Your task to perform on an android device: change alarm snooze length Image 0: 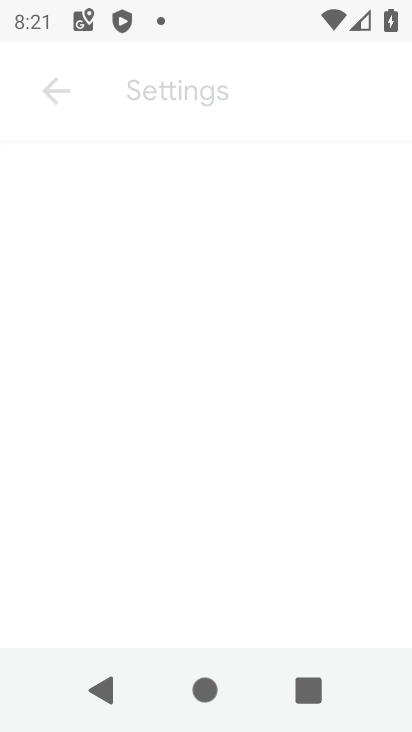
Step 0: drag from (215, 575) to (197, 237)
Your task to perform on an android device: change alarm snooze length Image 1: 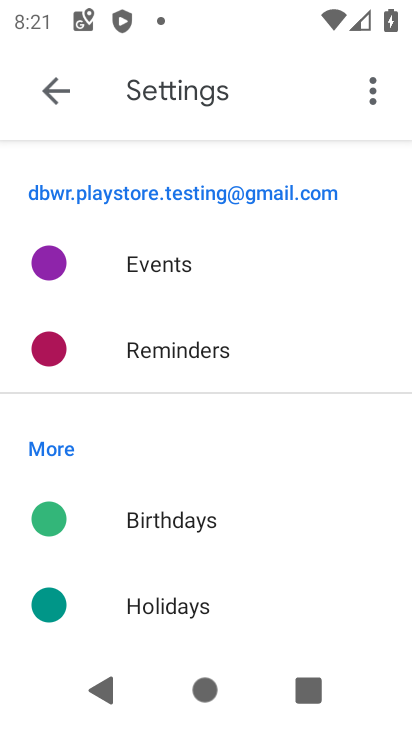
Step 1: press home button
Your task to perform on an android device: change alarm snooze length Image 2: 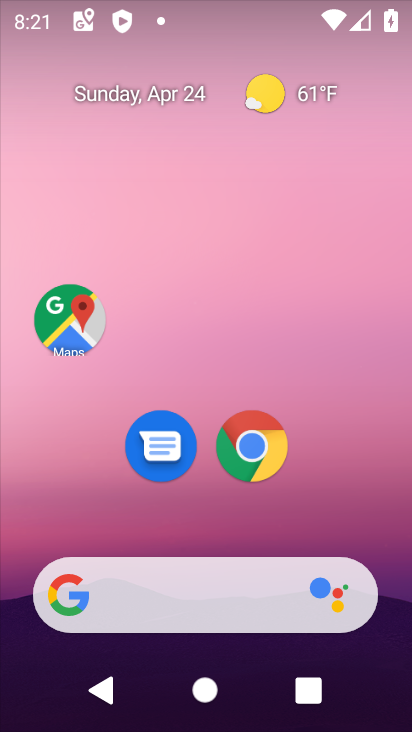
Step 2: drag from (212, 598) to (199, 18)
Your task to perform on an android device: change alarm snooze length Image 3: 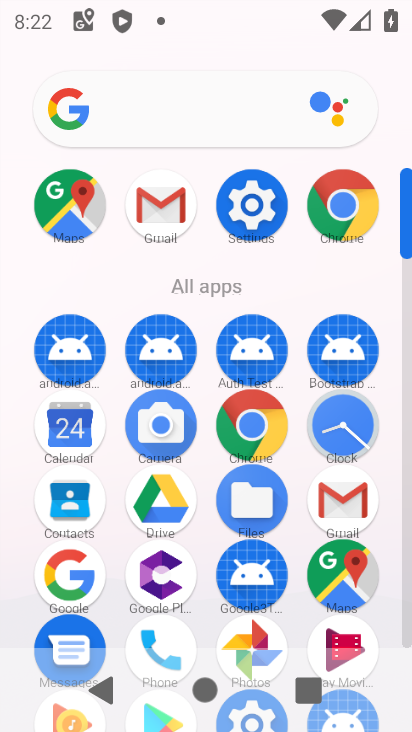
Step 3: drag from (244, 473) to (247, 246)
Your task to perform on an android device: change alarm snooze length Image 4: 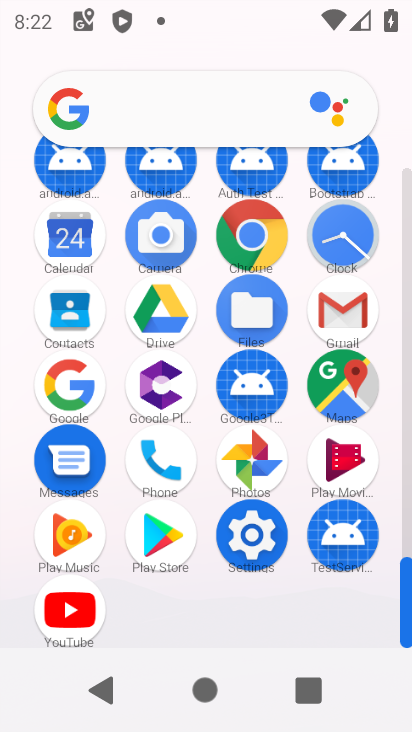
Step 4: click (358, 248)
Your task to perform on an android device: change alarm snooze length Image 5: 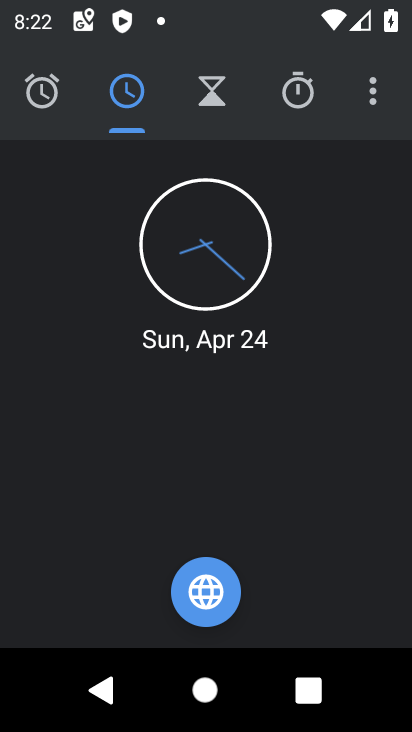
Step 5: click (376, 106)
Your task to perform on an android device: change alarm snooze length Image 6: 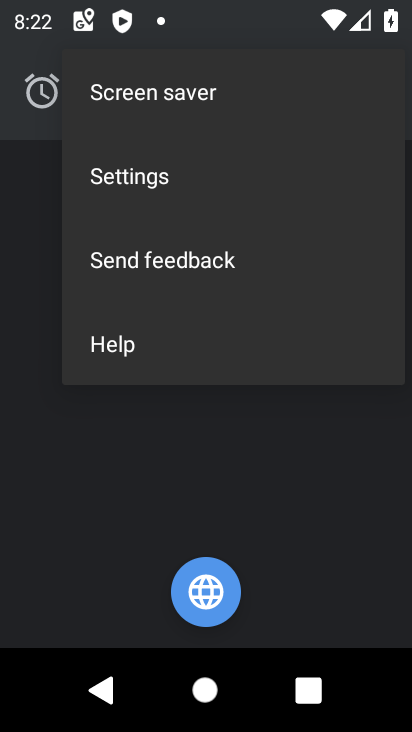
Step 6: click (178, 170)
Your task to perform on an android device: change alarm snooze length Image 7: 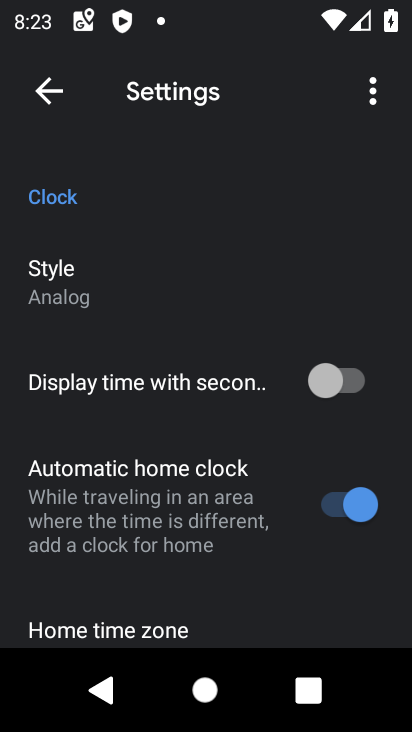
Step 7: drag from (127, 484) to (149, 29)
Your task to perform on an android device: change alarm snooze length Image 8: 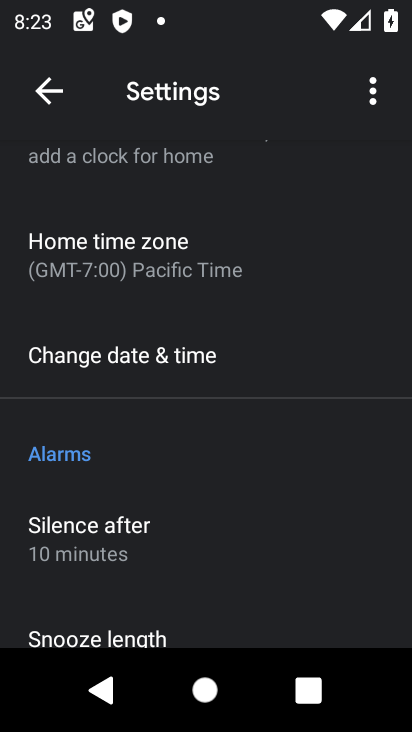
Step 8: drag from (175, 544) to (215, 173)
Your task to perform on an android device: change alarm snooze length Image 9: 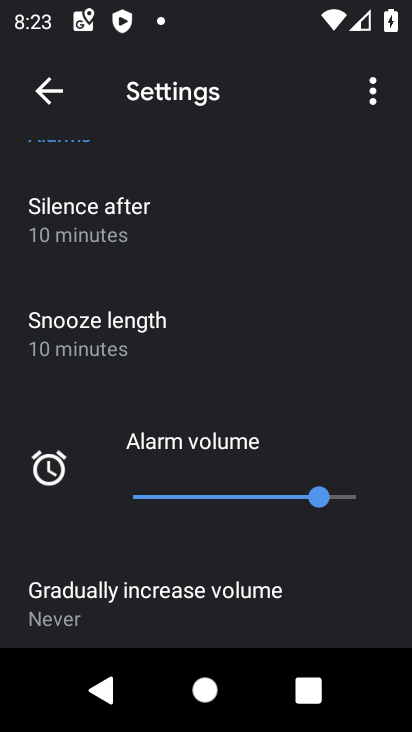
Step 9: click (163, 335)
Your task to perform on an android device: change alarm snooze length Image 10: 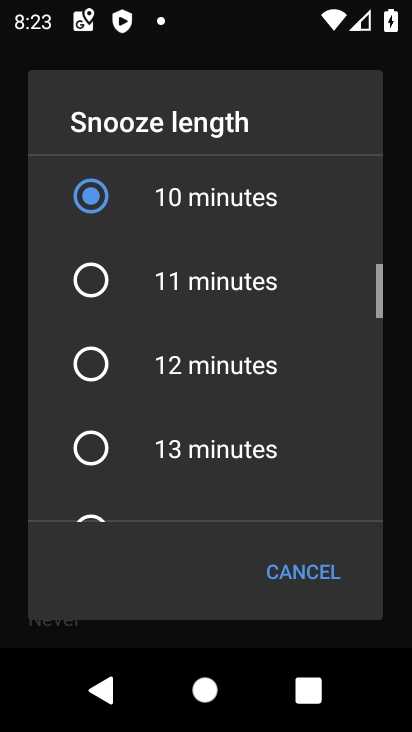
Step 10: click (134, 376)
Your task to perform on an android device: change alarm snooze length Image 11: 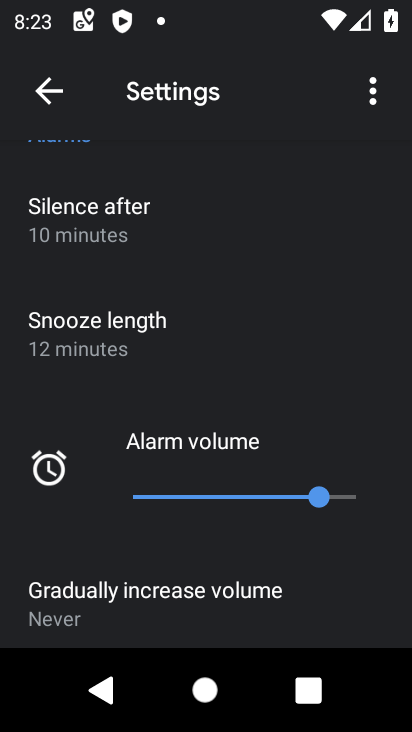
Step 11: task complete